Your task to perform on an android device: Open the web browser Image 0: 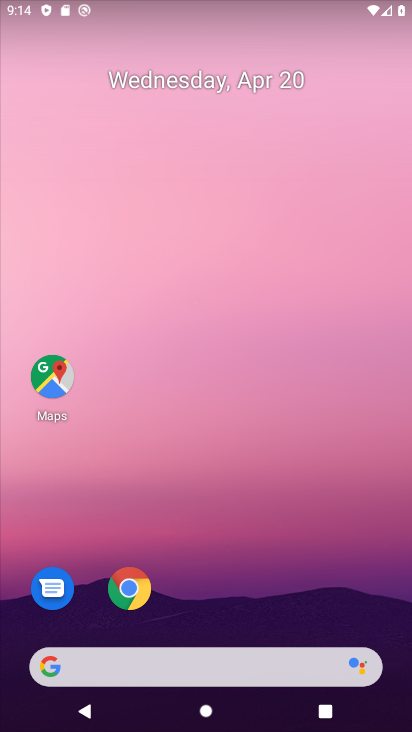
Step 0: click (118, 581)
Your task to perform on an android device: Open the web browser Image 1: 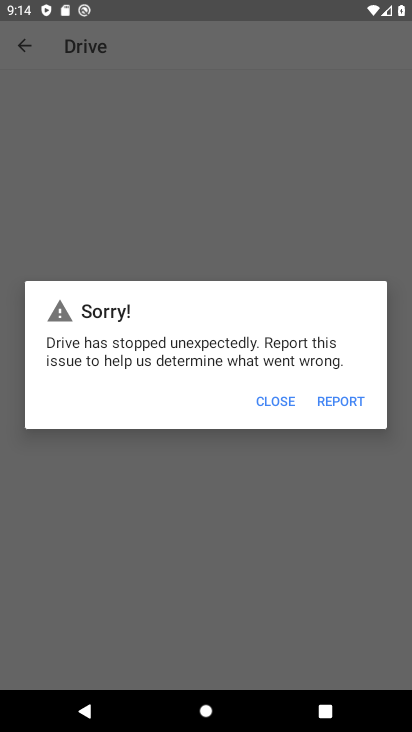
Step 1: press home button
Your task to perform on an android device: Open the web browser Image 2: 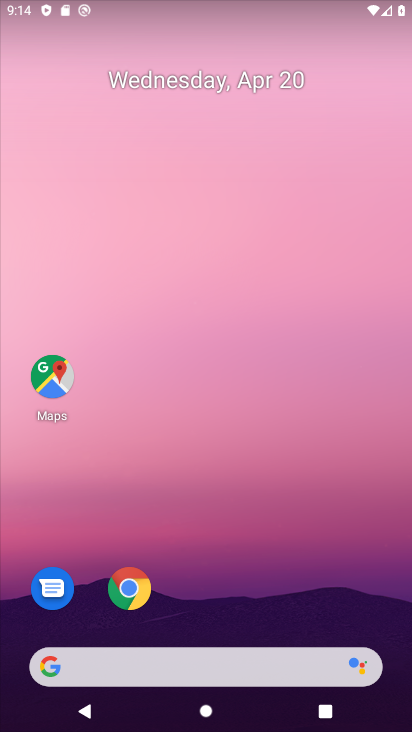
Step 2: click (131, 592)
Your task to perform on an android device: Open the web browser Image 3: 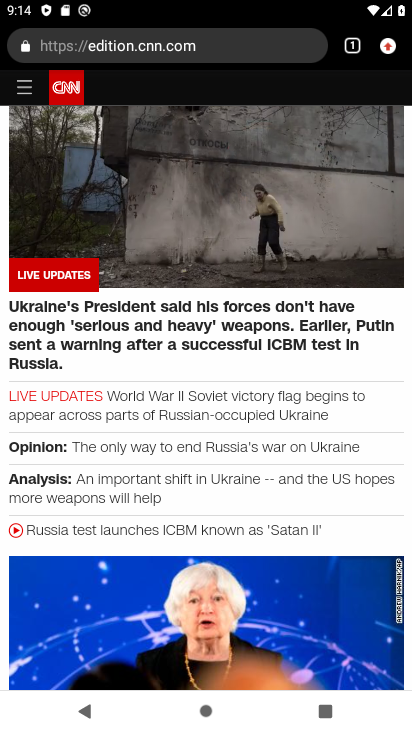
Step 3: task complete